Your task to perform on an android device: Go to network settings Image 0: 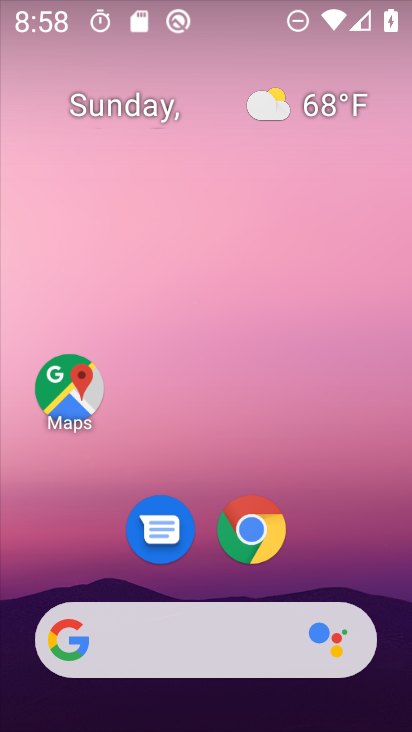
Step 0: drag from (209, 588) to (199, 83)
Your task to perform on an android device: Go to network settings Image 1: 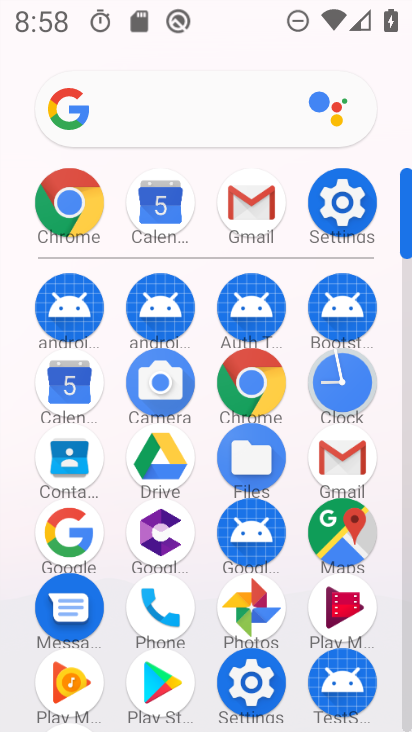
Step 1: click (338, 194)
Your task to perform on an android device: Go to network settings Image 2: 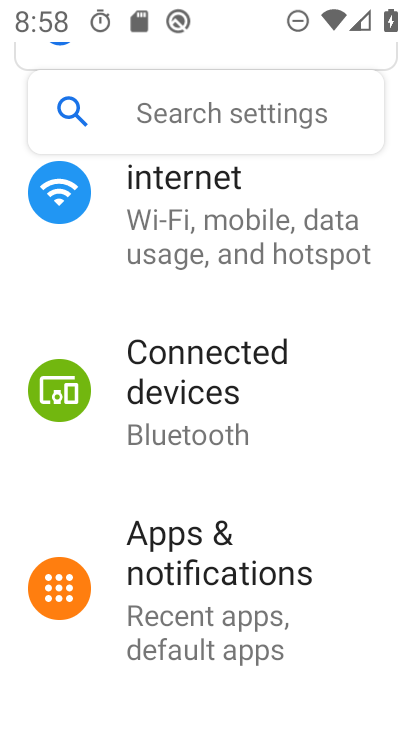
Step 2: click (197, 200)
Your task to perform on an android device: Go to network settings Image 3: 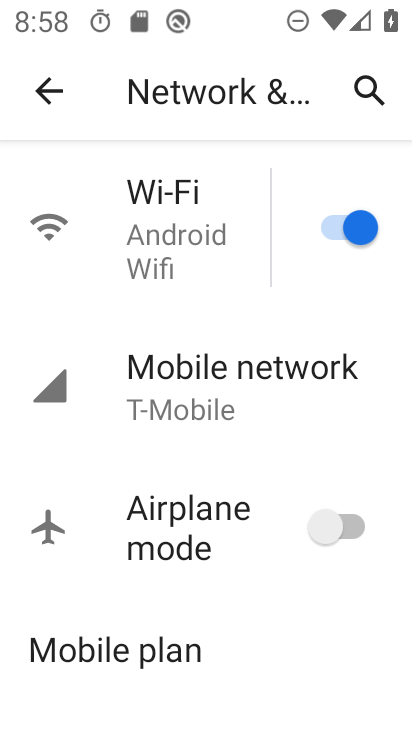
Step 3: drag from (204, 660) to (250, 64)
Your task to perform on an android device: Go to network settings Image 4: 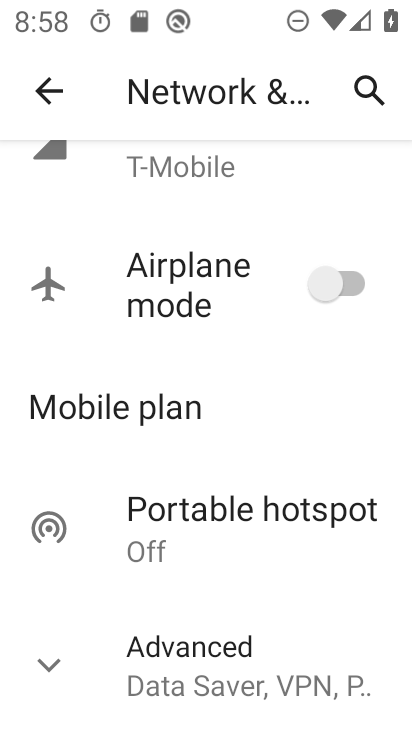
Step 4: click (48, 663)
Your task to perform on an android device: Go to network settings Image 5: 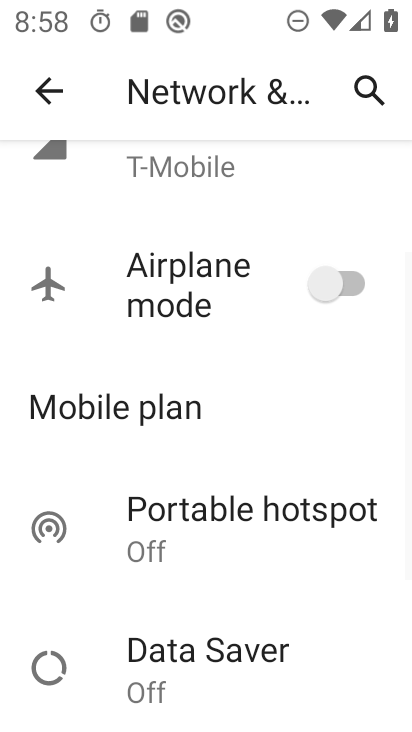
Step 5: task complete